Your task to perform on an android device: open wifi settings Image 0: 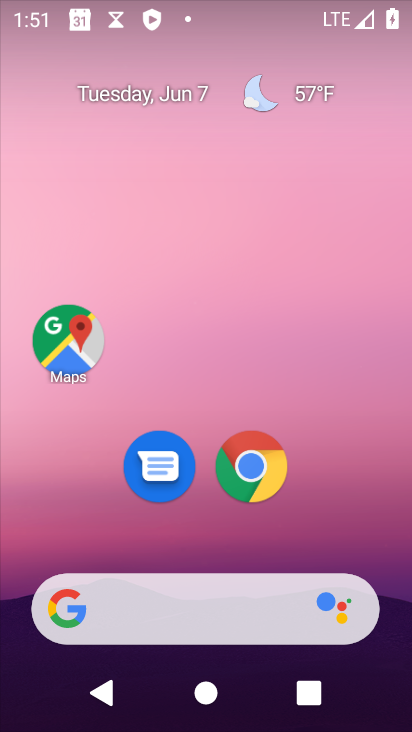
Step 0: drag from (129, 6) to (240, 484)
Your task to perform on an android device: open wifi settings Image 1: 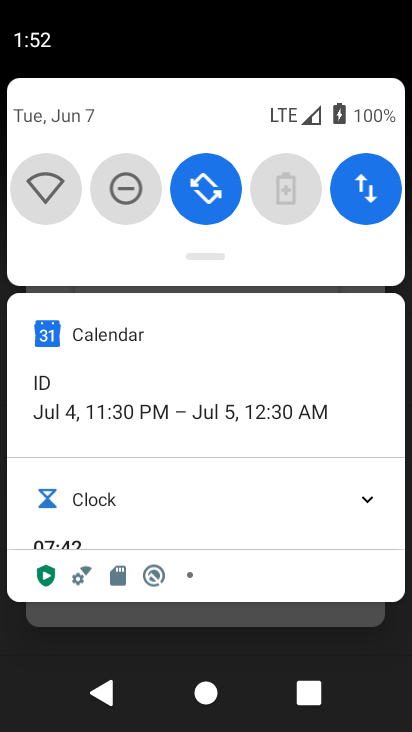
Step 1: click (39, 189)
Your task to perform on an android device: open wifi settings Image 2: 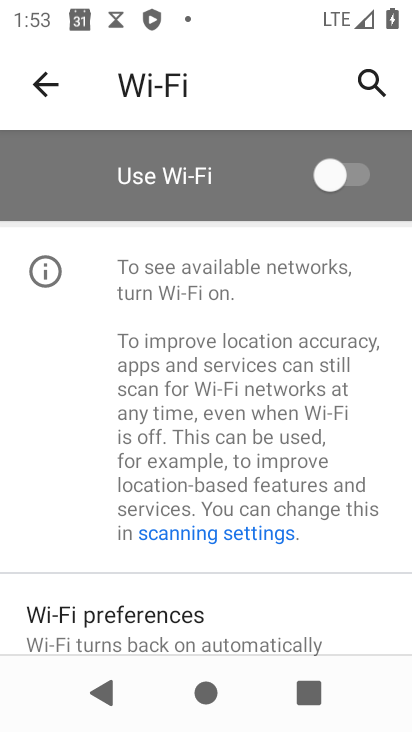
Step 2: task complete